Your task to perform on an android device: Turn off the flashlight Image 0: 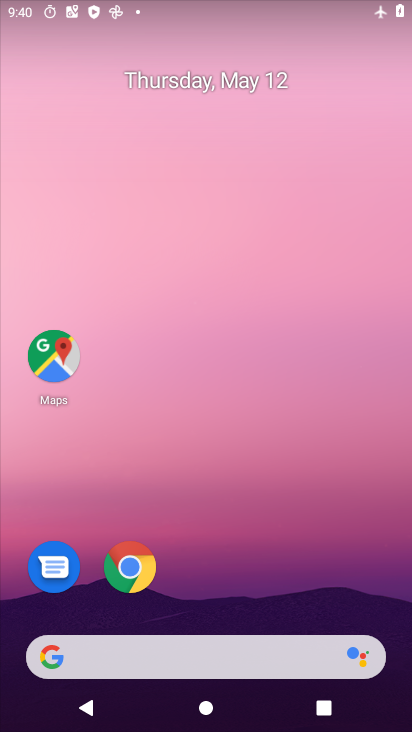
Step 0: drag from (329, 8) to (215, 318)
Your task to perform on an android device: Turn off the flashlight Image 1: 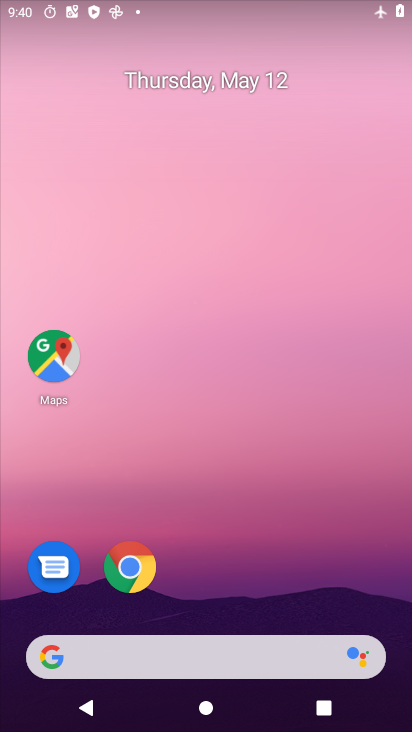
Step 1: task complete